Your task to perform on an android device: toggle show notifications on the lock screen Image 0: 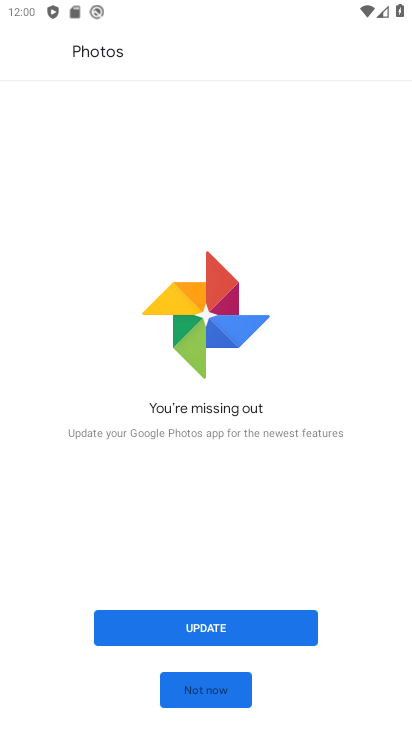
Step 0: press home button
Your task to perform on an android device: toggle show notifications on the lock screen Image 1: 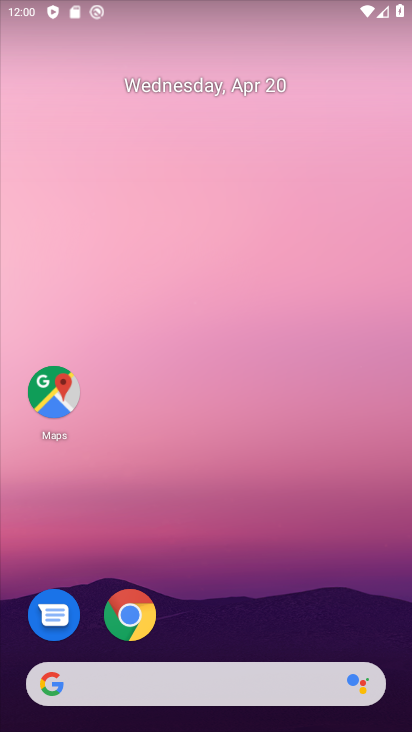
Step 1: drag from (254, 521) to (314, 162)
Your task to perform on an android device: toggle show notifications on the lock screen Image 2: 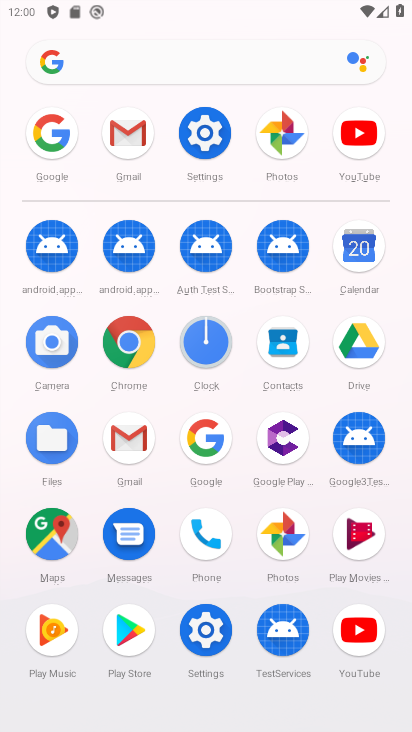
Step 2: click (198, 132)
Your task to perform on an android device: toggle show notifications on the lock screen Image 3: 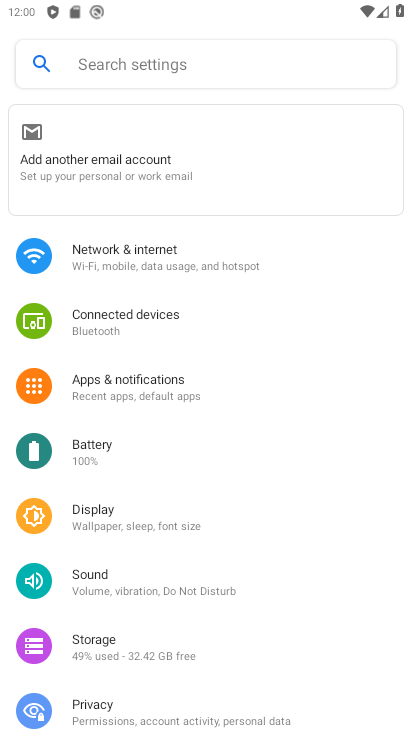
Step 3: click (131, 391)
Your task to perform on an android device: toggle show notifications on the lock screen Image 4: 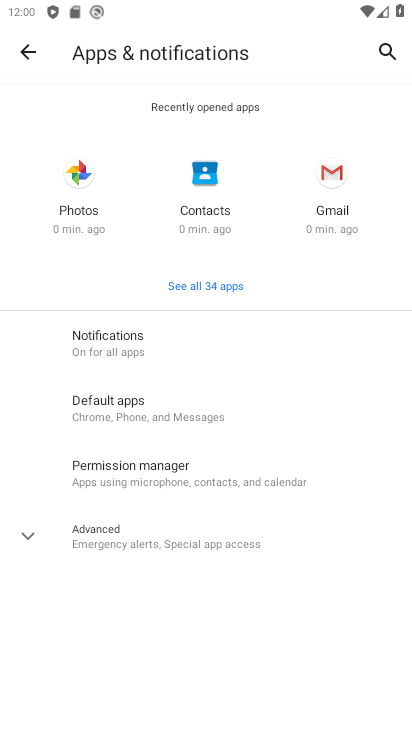
Step 4: click (124, 357)
Your task to perform on an android device: toggle show notifications on the lock screen Image 5: 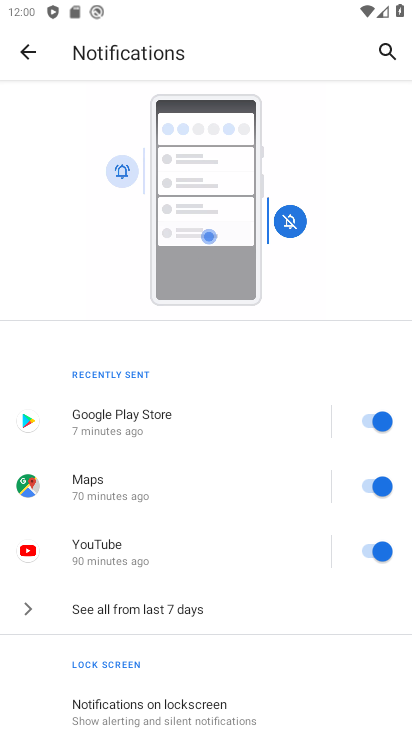
Step 5: drag from (172, 636) to (202, 331)
Your task to perform on an android device: toggle show notifications on the lock screen Image 6: 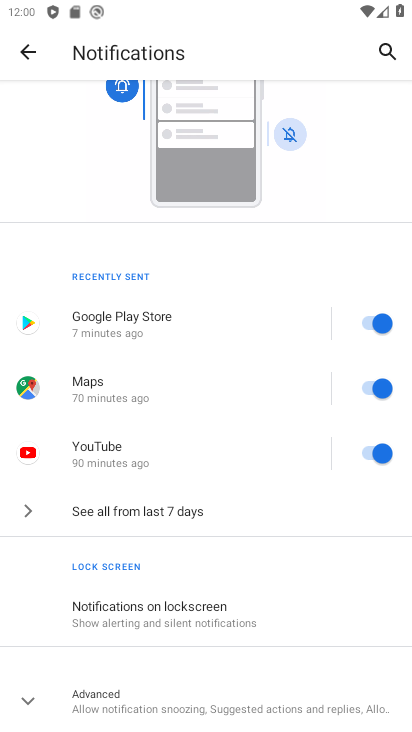
Step 6: click (170, 620)
Your task to perform on an android device: toggle show notifications on the lock screen Image 7: 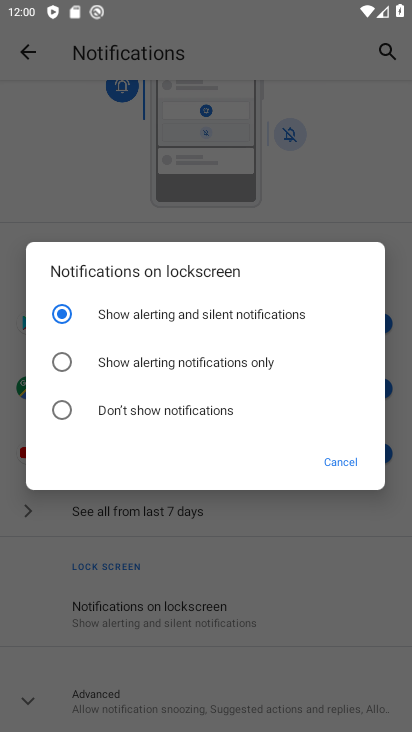
Step 7: click (56, 415)
Your task to perform on an android device: toggle show notifications on the lock screen Image 8: 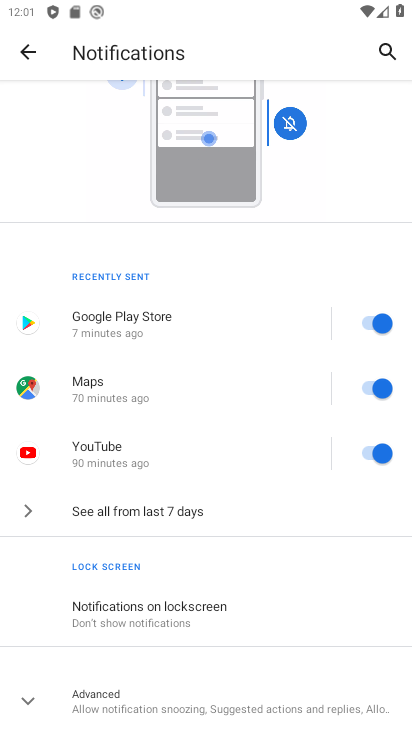
Step 8: task complete